Your task to perform on an android device: Open Maps and search for coffee Image 0: 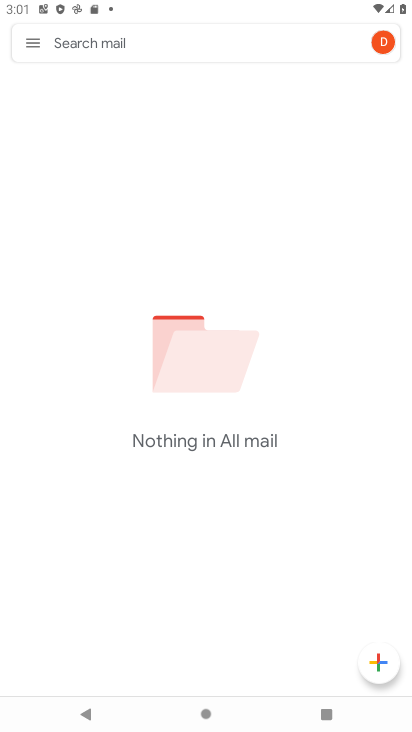
Step 0: press home button
Your task to perform on an android device: Open Maps and search for coffee Image 1: 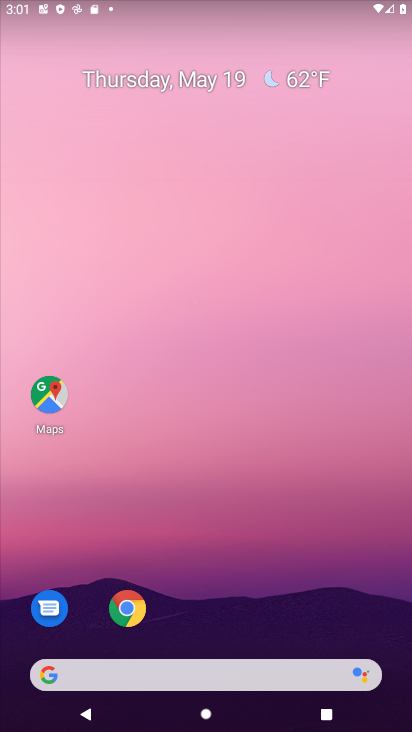
Step 1: drag from (295, 552) to (290, 96)
Your task to perform on an android device: Open Maps and search for coffee Image 2: 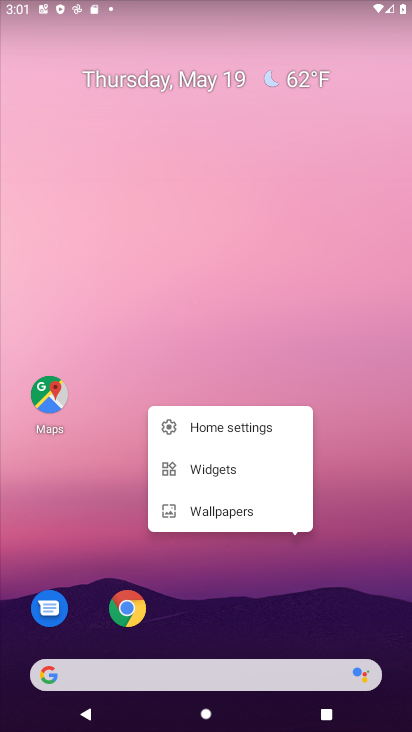
Step 2: click (248, 562)
Your task to perform on an android device: Open Maps and search for coffee Image 3: 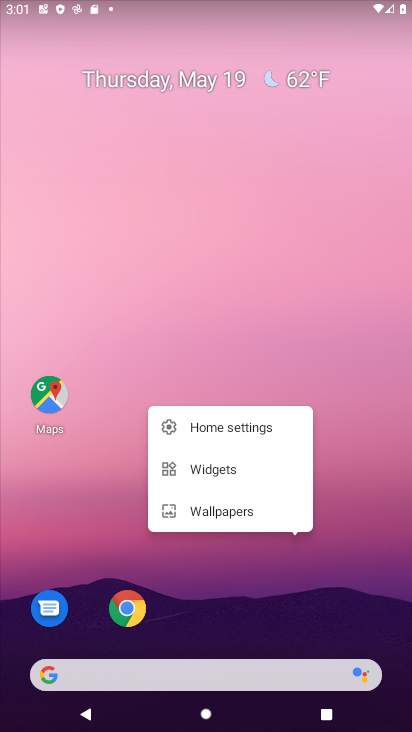
Step 3: click (248, 562)
Your task to perform on an android device: Open Maps and search for coffee Image 4: 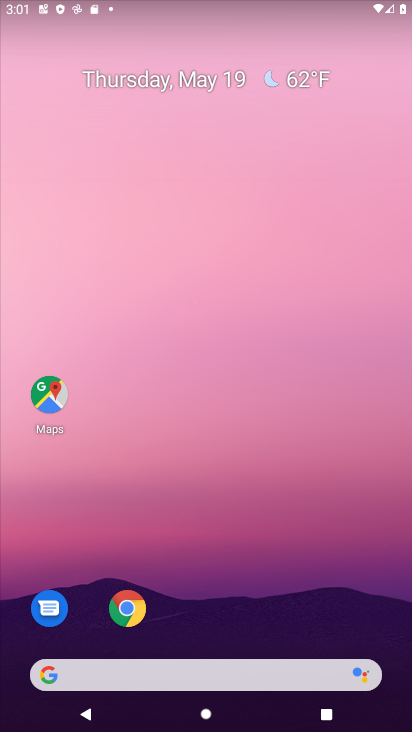
Step 4: drag from (248, 624) to (280, 120)
Your task to perform on an android device: Open Maps and search for coffee Image 5: 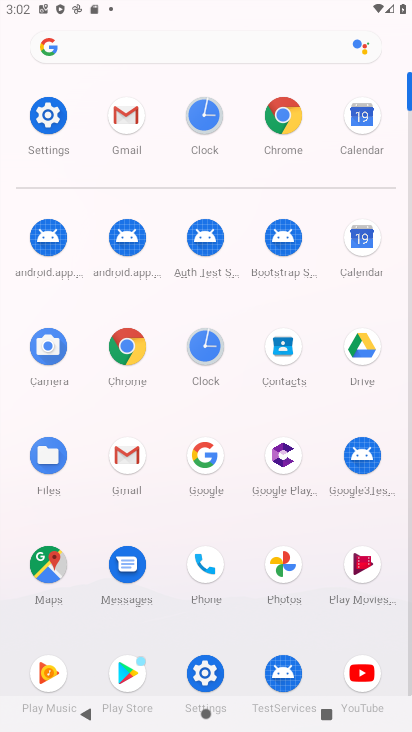
Step 5: click (54, 579)
Your task to perform on an android device: Open Maps and search for coffee Image 6: 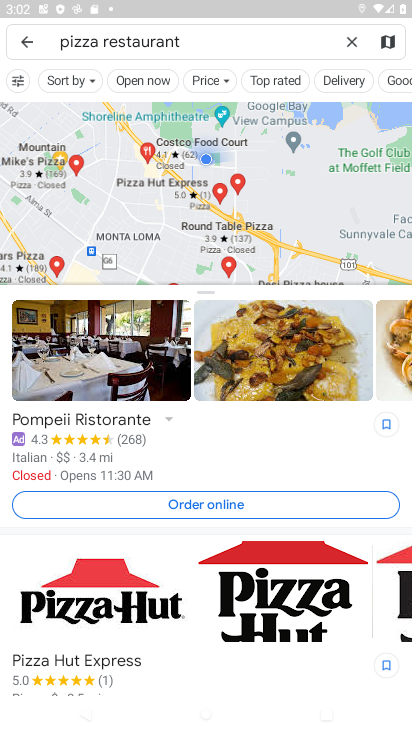
Step 6: click (353, 47)
Your task to perform on an android device: Open Maps and search for coffee Image 7: 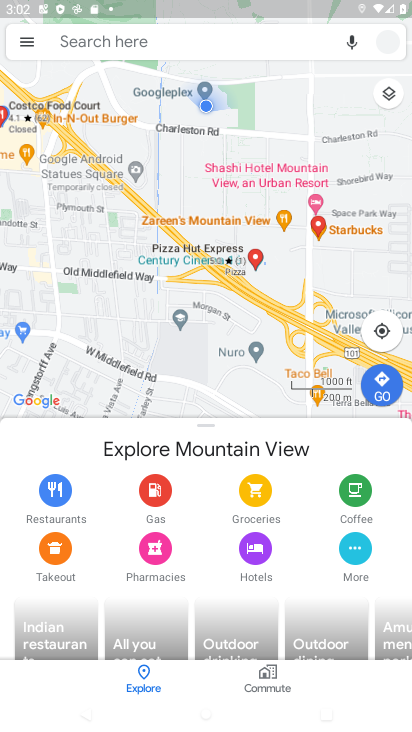
Step 7: click (228, 48)
Your task to perform on an android device: Open Maps and search for coffee Image 8: 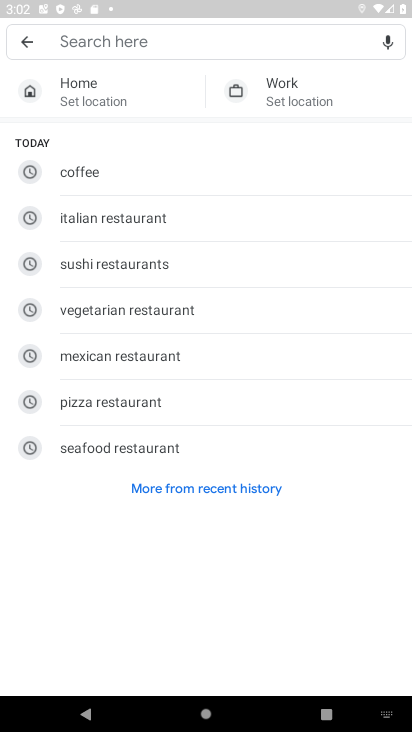
Step 8: click (227, 170)
Your task to perform on an android device: Open Maps and search for coffee Image 9: 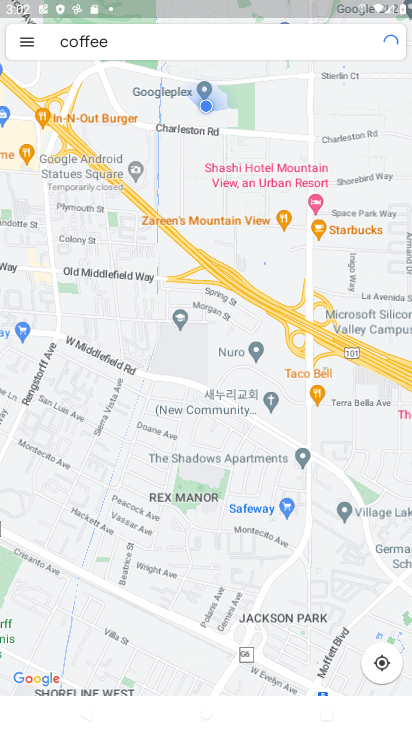
Step 9: task complete